Your task to perform on an android device: install app "Google Translate" Image 0: 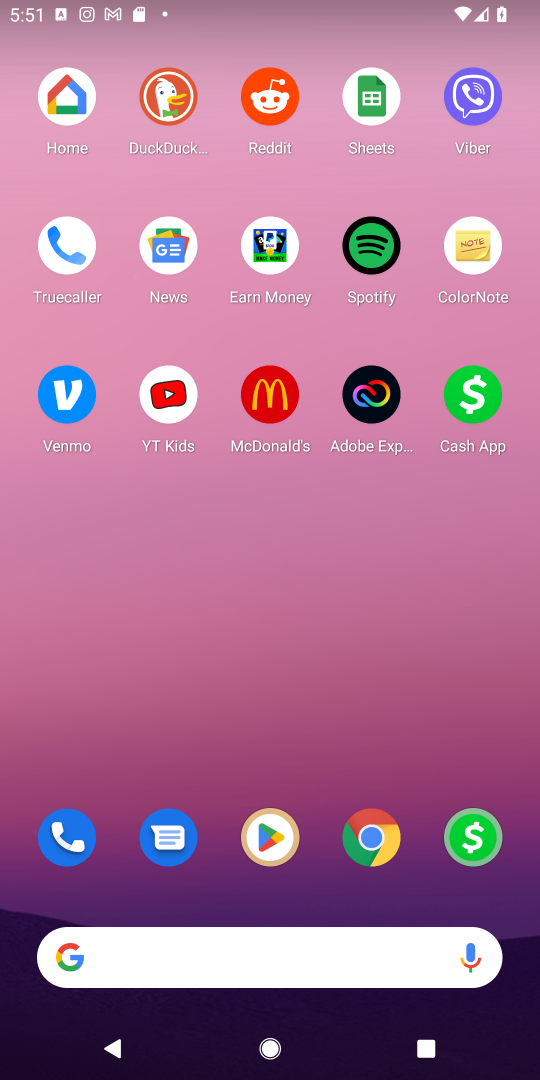
Step 0: press home button
Your task to perform on an android device: install app "Google Translate" Image 1: 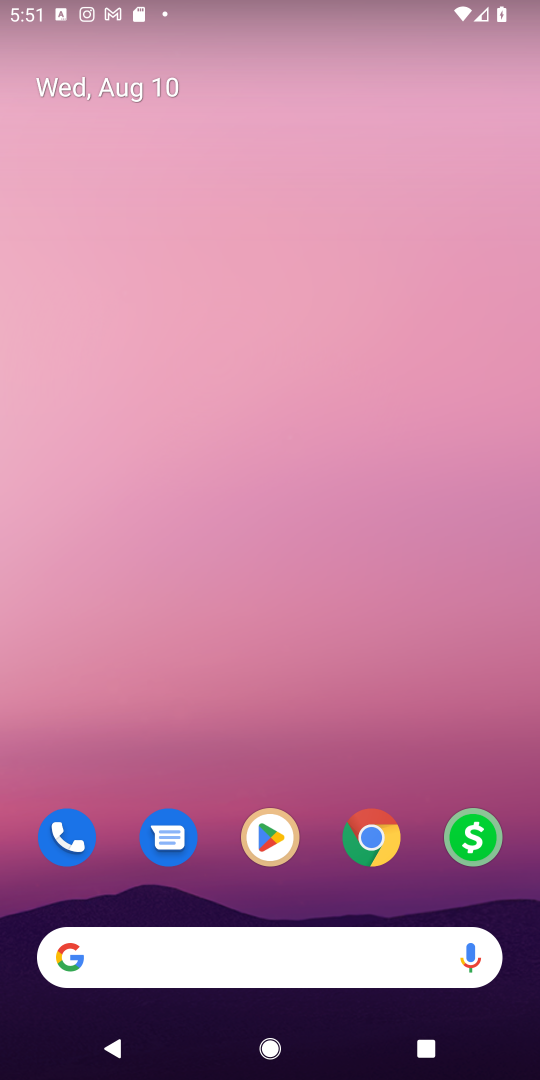
Step 1: click (269, 839)
Your task to perform on an android device: install app "Google Translate" Image 2: 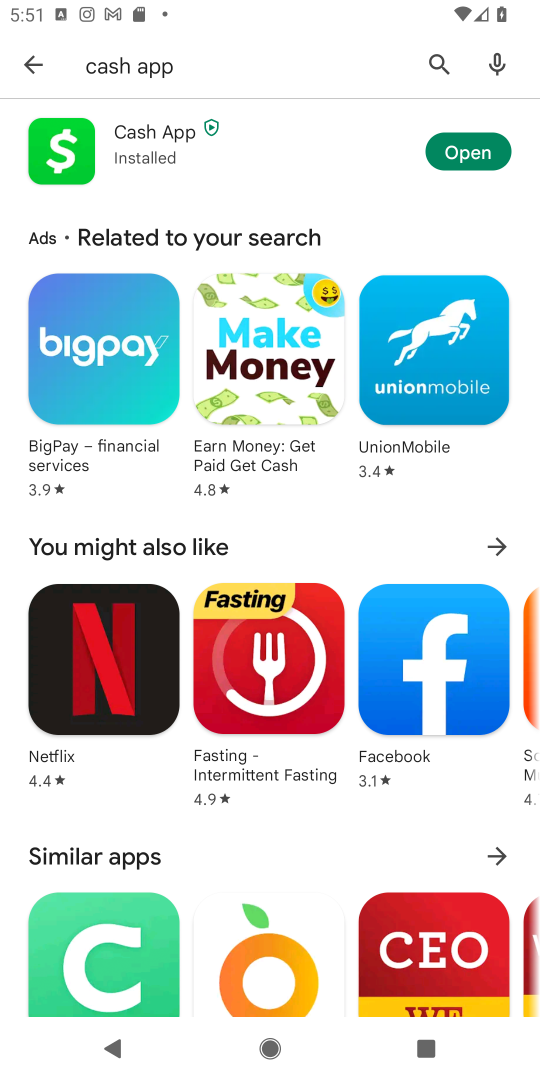
Step 2: click (438, 58)
Your task to perform on an android device: install app "Google Translate" Image 3: 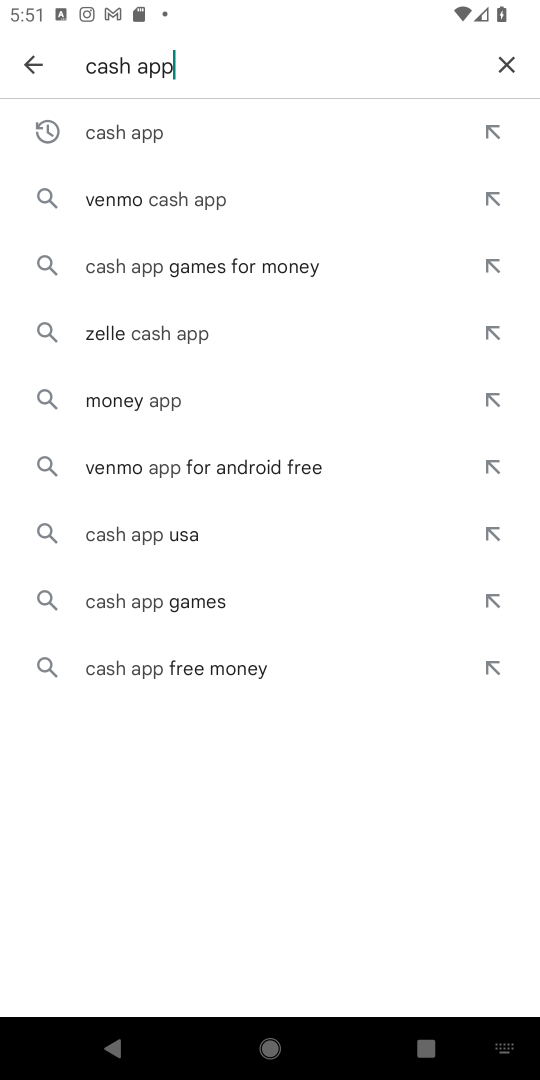
Step 3: click (510, 56)
Your task to perform on an android device: install app "Google Translate" Image 4: 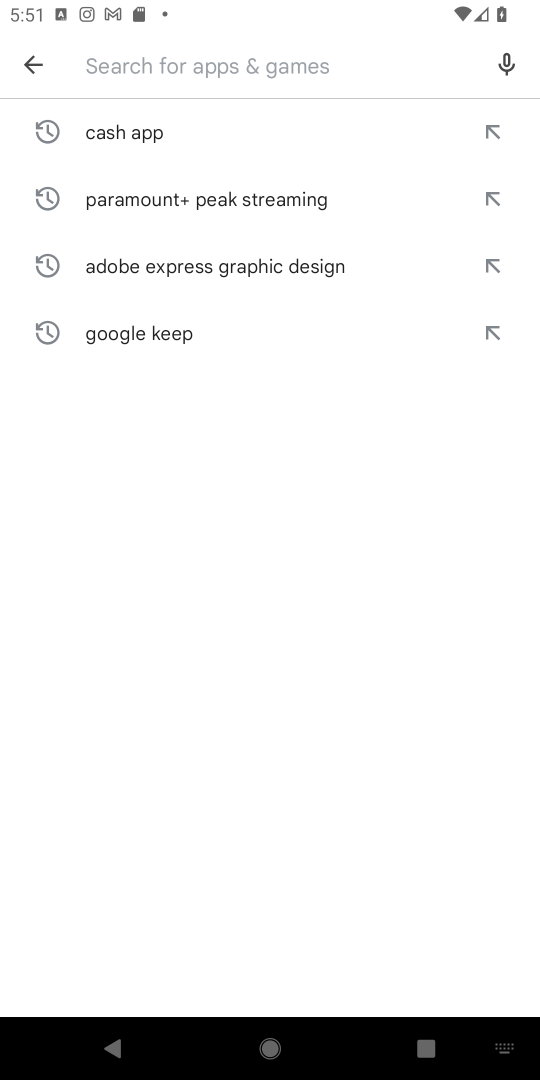
Step 4: type "Google Translate"
Your task to perform on an android device: install app "Google Translate" Image 5: 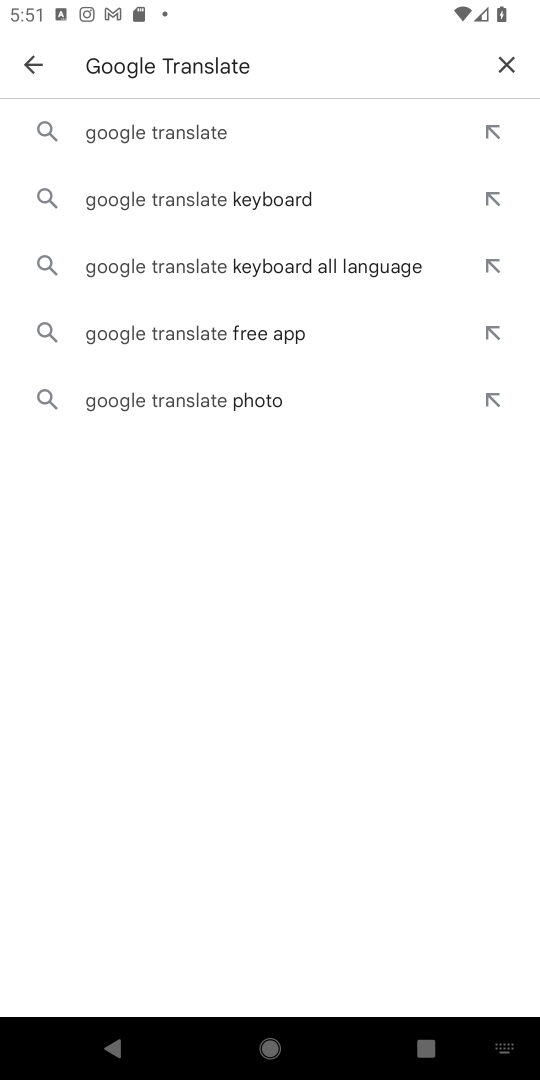
Step 5: click (188, 132)
Your task to perform on an android device: install app "Google Translate" Image 6: 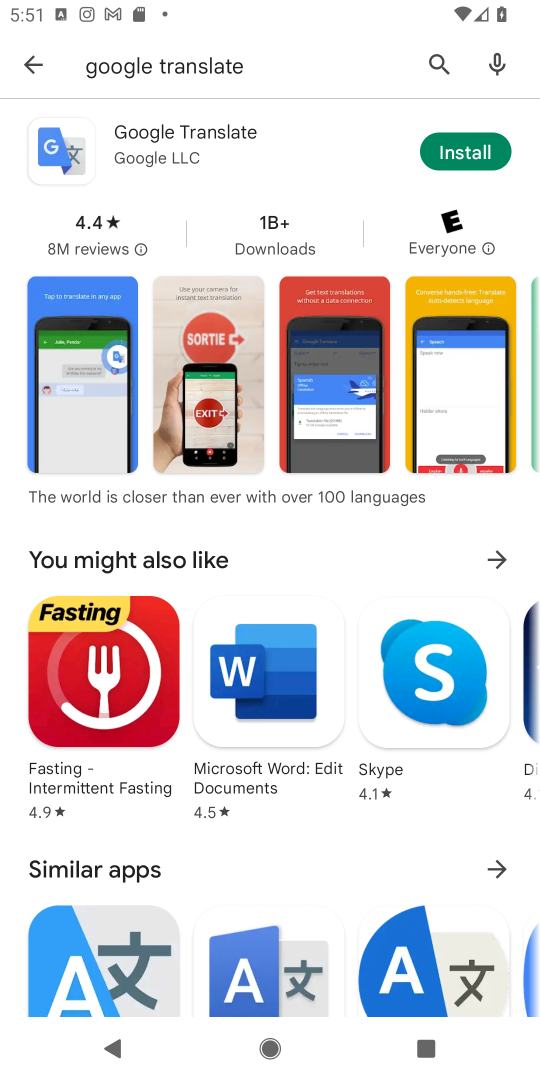
Step 6: click (453, 147)
Your task to perform on an android device: install app "Google Translate" Image 7: 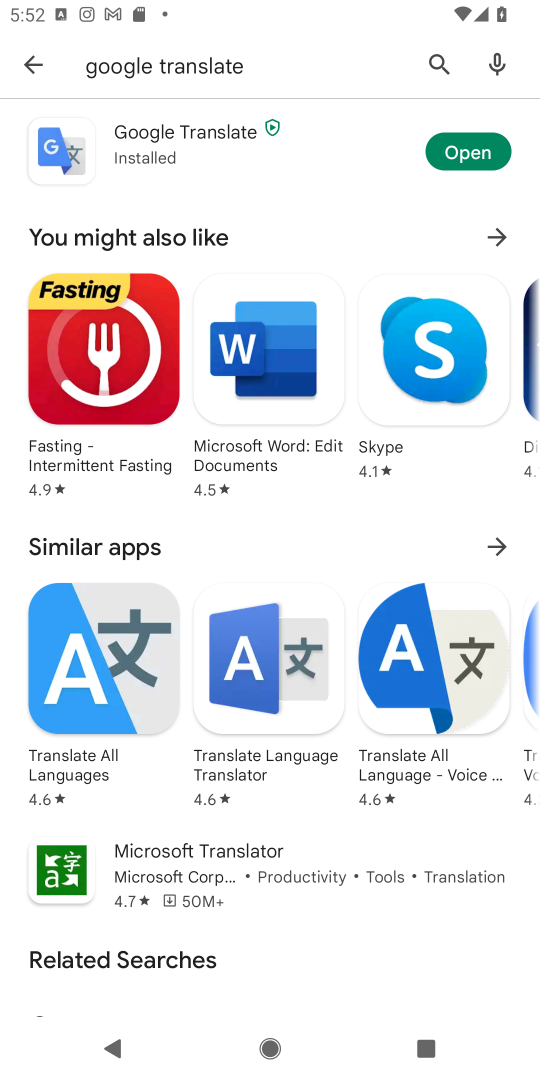
Step 7: task complete